Your task to perform on an android device: Go to wifi settings Image 0: 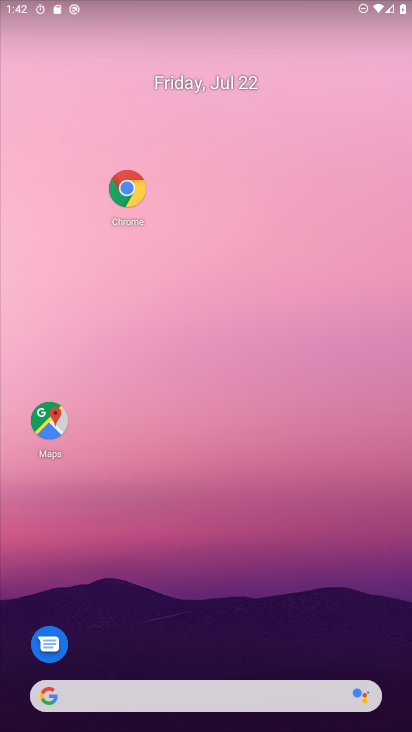
Step 0: drag from (147, 8) to (119, 678)
Your task to perform on an android device: Go to wifi settings Image 1: 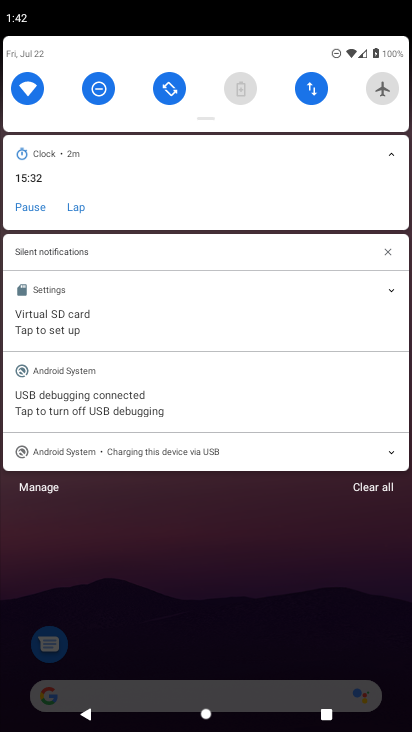
Step 1: click (32, 88)
Your task to perform on an android device: Go to wifi settings Image 2: 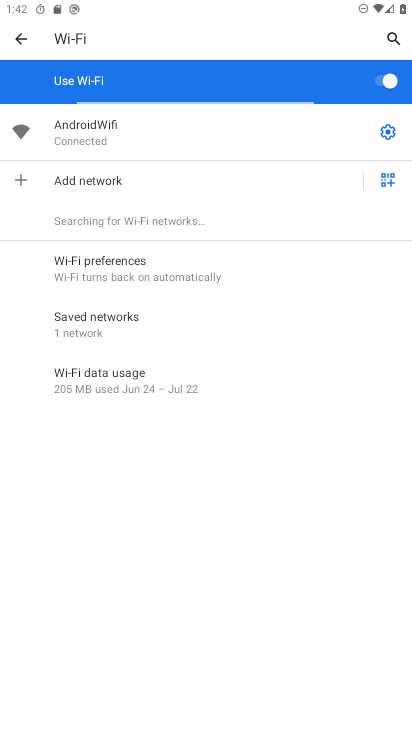
Step 2: task complete